Your task to perform on an android device: set default search engine in the chrome app Image 0: 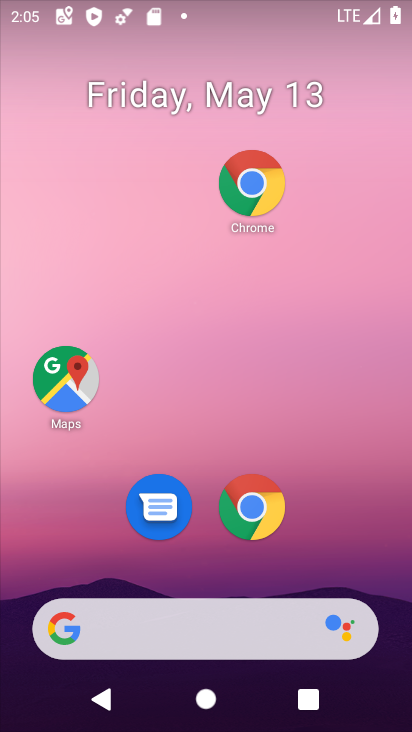
Step 0: drag from (300, 612) to (214, 131)
Your task to perform on an android device: set default search engine in the chrome app Image 1: 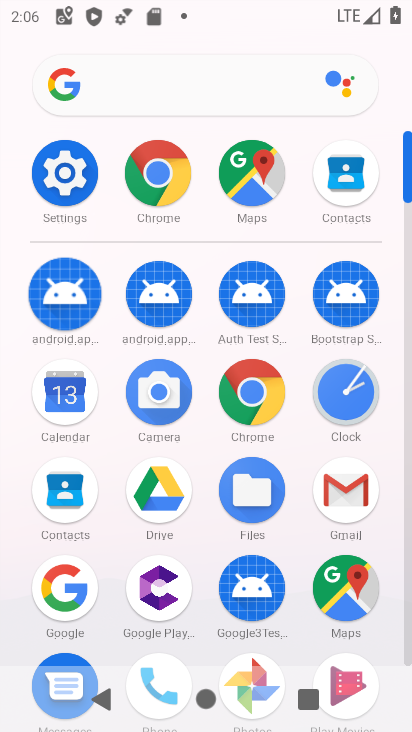
Step 1: click (165, 174)
Your task to perform on an android device: set default search engine in the chrome app Image 2: 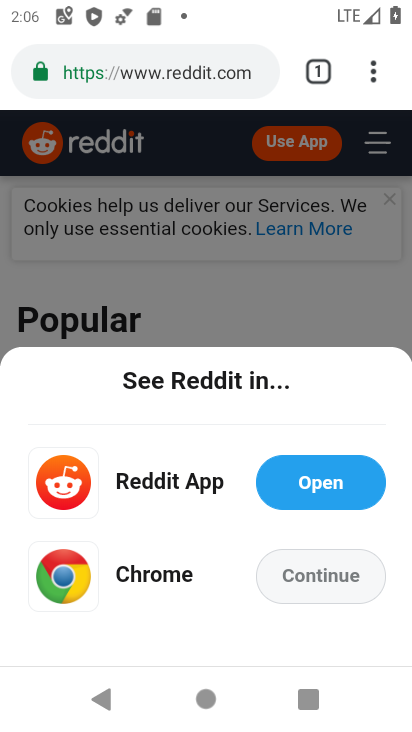
Step 2: drag from (367, 76) to (110, 517)
Your task to perform on an android device: set default search engine in the chrome app Image 3: 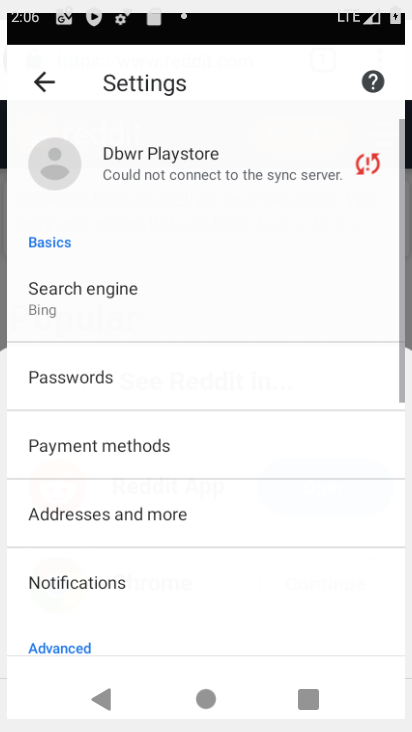
Step 3: click (110, 517)
Your task to perform on an android device: set default search engine in the chrome app Image 4: 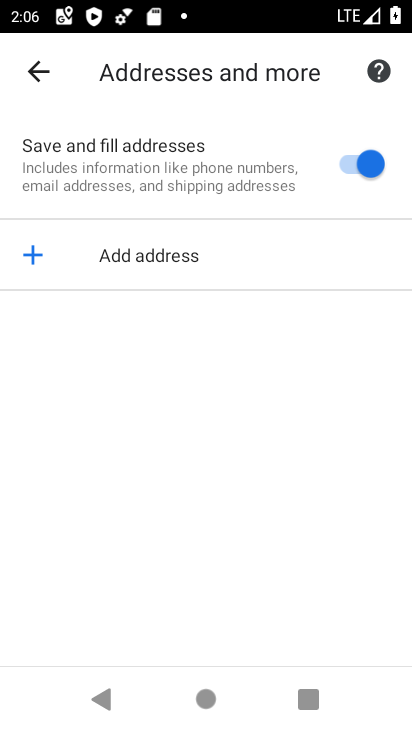
Step 4: click (29, 73)
Your task to perform on an android device: set default search engine in the chrome app Image 5: 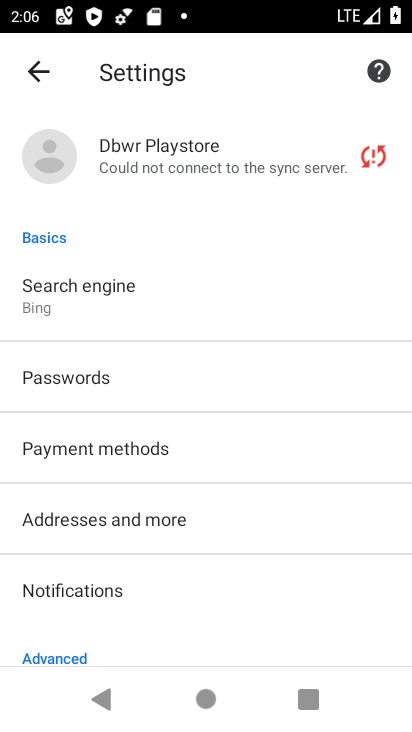
Step 5: click (60, 279)
Your task to perform on an android device: set default search engine in the chrome app Image 6: 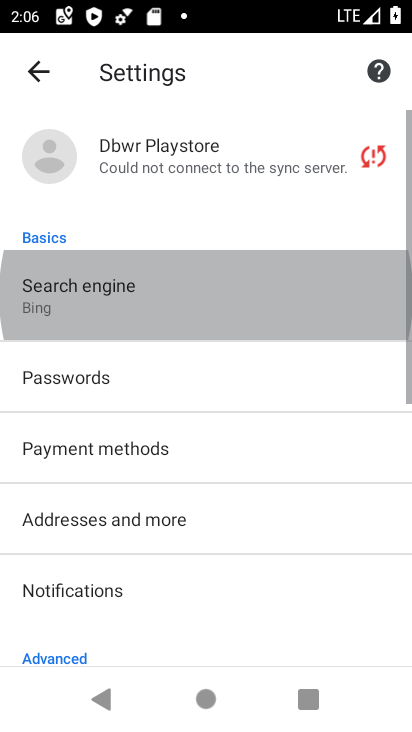
Step 6: click (60, 284)
Your task to perform on an android device: set default search engine in the chrome app Image 7: 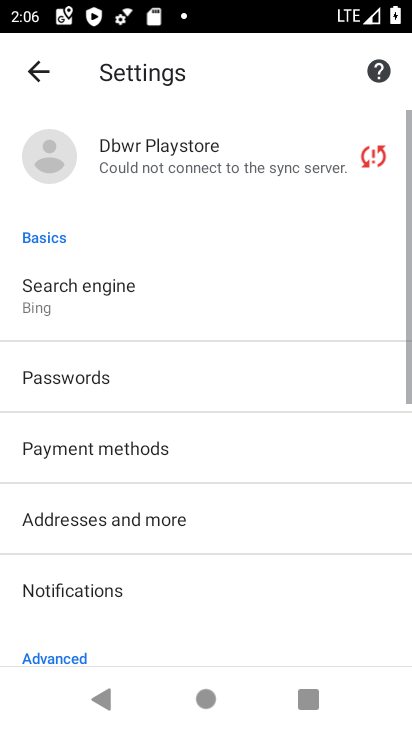
Step 7: click (60, 284)
Your task to perform on an android device: set default search engine in the chrome app Image 8: 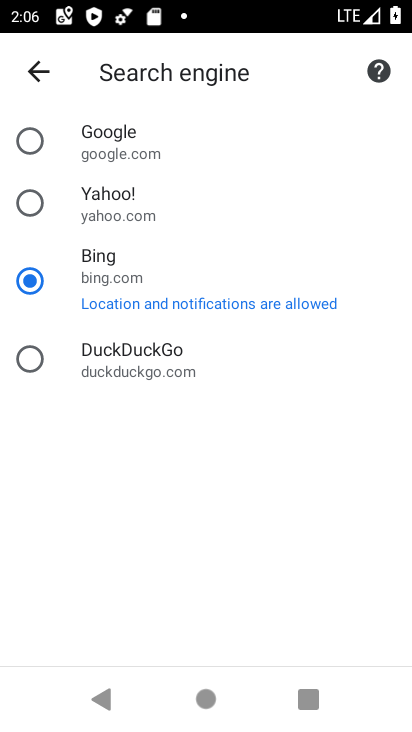
Step 8: click (19, 131)
Your task to perform on an android device: set default search engine in the chrome app Image 9: 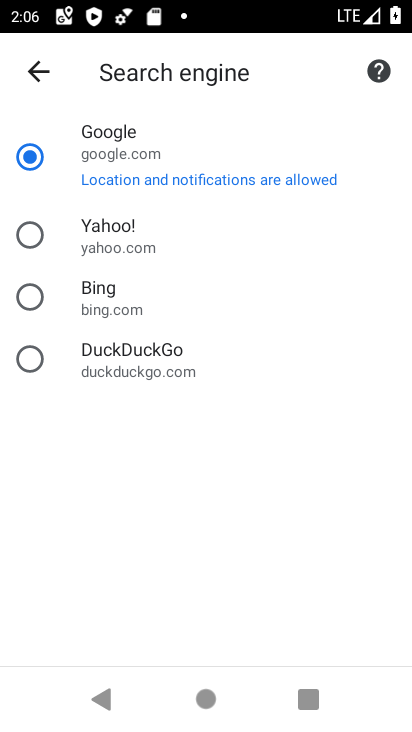
Step 9: task complete